Your task to perform on an android device: Go to Reddit.com Image 0: 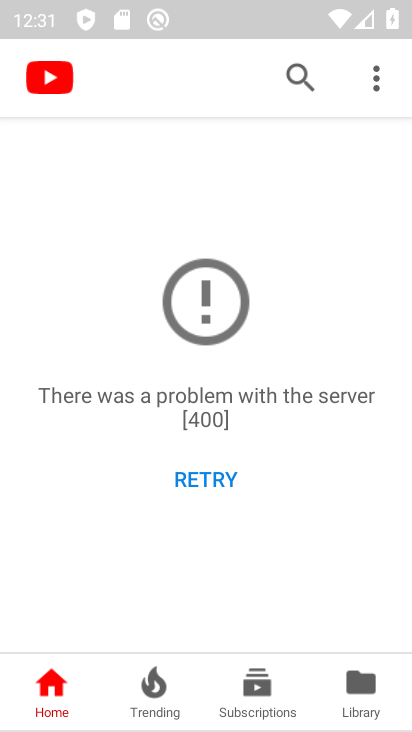
Step 0: press back button
Your task to perform on an android device: Go to Reddit.com Image 1: 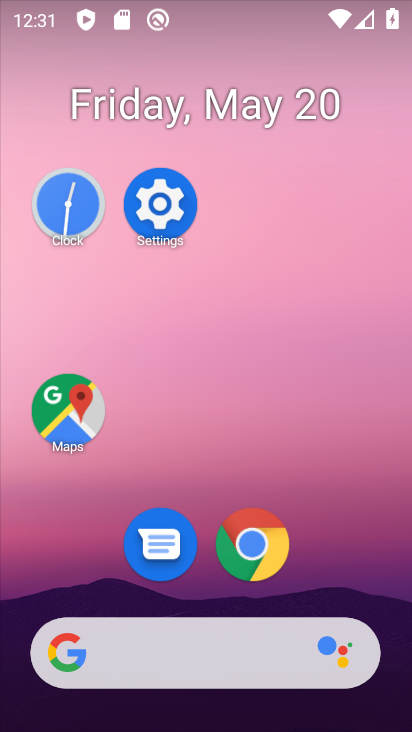
Step 1: click (298, 555)
Your task to perform on an android device: Go to Reddit.com Image 2: 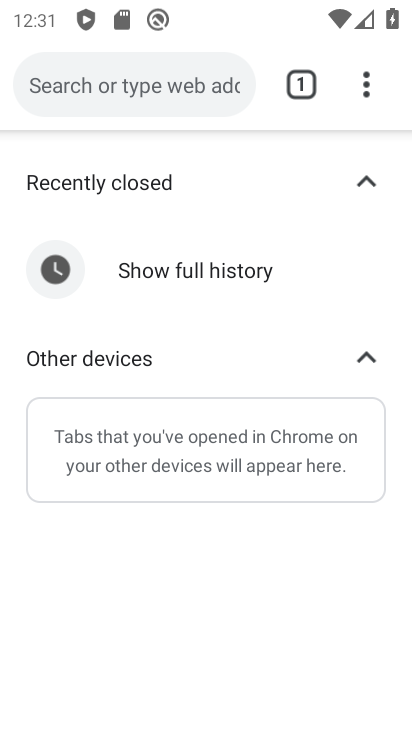
Step 2: click (299, 87)
Your task to perform on an android device: Go to Reddit.com Image 3: 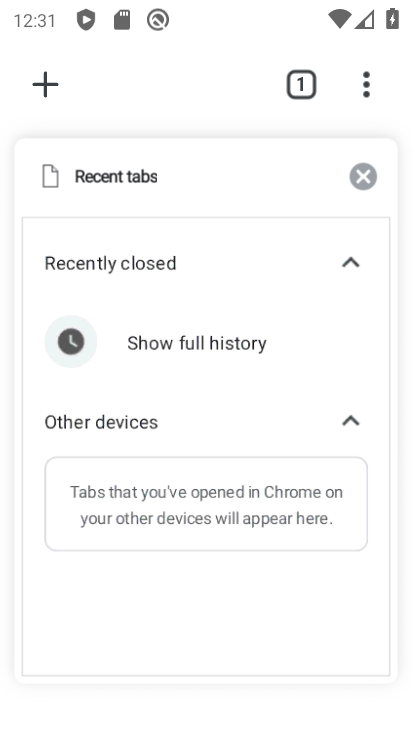
Step 3: click (43, 77)
Your task to perform on an android device: Go to Reddit.com Image 4: 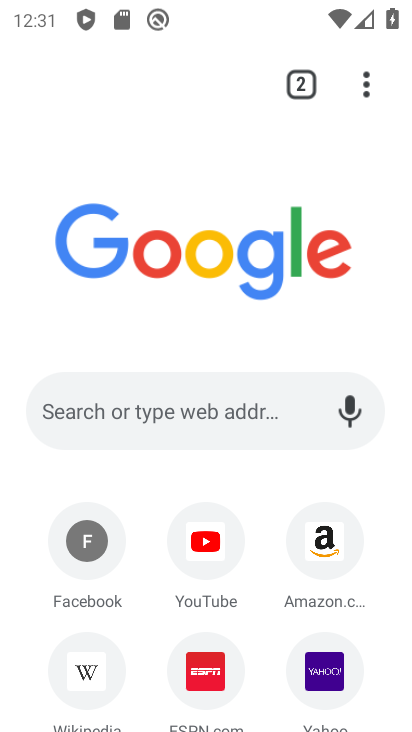
Step 4: click (166, 390)
Your task to perform on an android device: Go to Reddit.com Image 5: 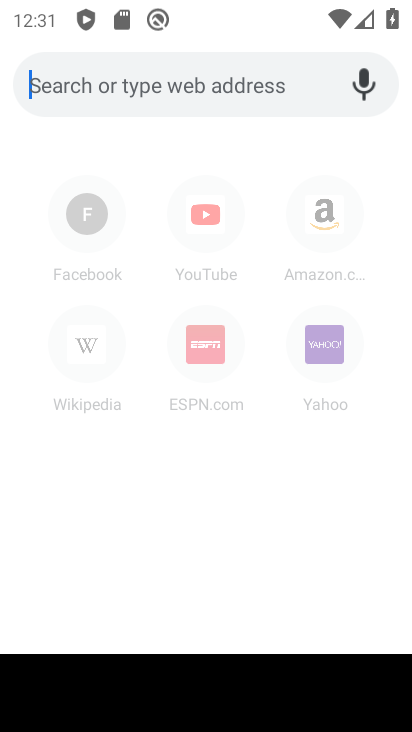
Step 5: type "reddit"
Your task to perform on an android device: Go to Reddit.com Image 6: 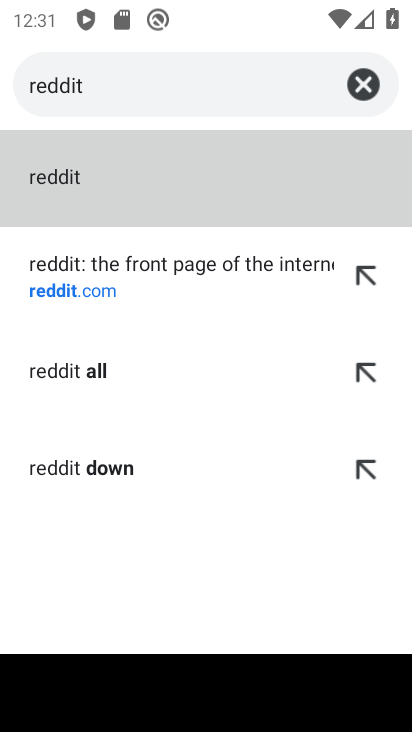
Step 6: click (167, 263)
Your task to perform on an android device: Go to Reddit.com Image 7: 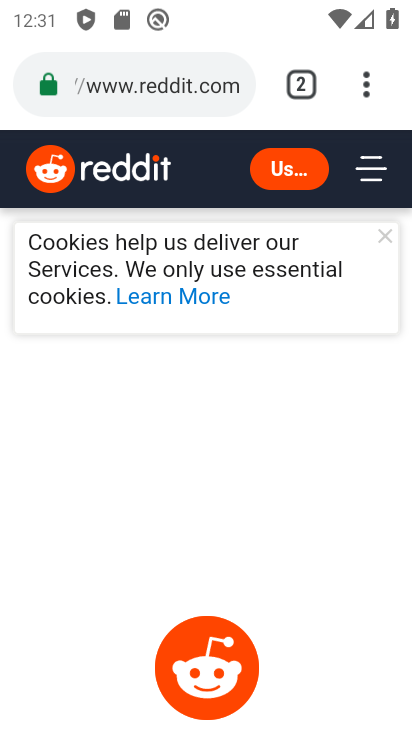
Step 7: task complete